Your task to perform on an android device: Open notification settings Image 0: 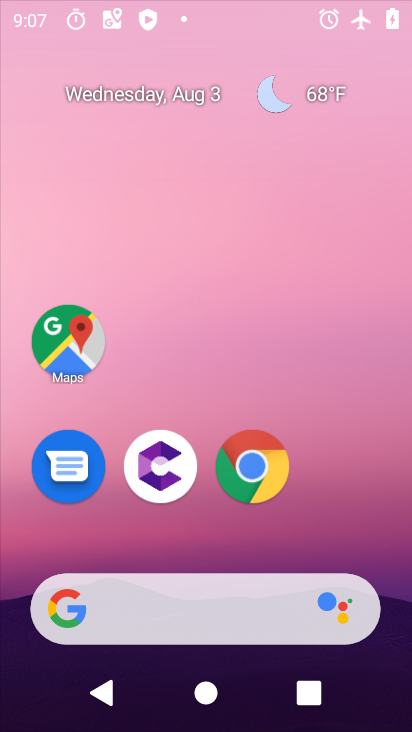
Step 0: drag from (348, 547) to (263, 71)
Your task to perform on an android device: Open notification settings Image 1: 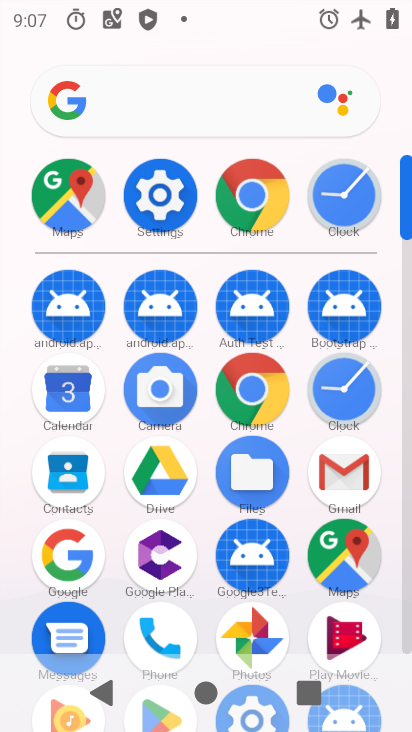
Step 1: click (162, 195)
Your task to perform on an android device: Open notification settings Image 2: 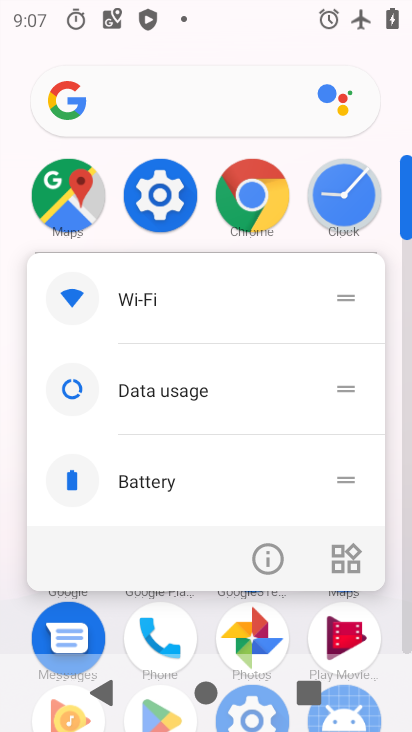
Step 2: click (386, 591)
Your task to perform on an android device: Open notification settings Image 3: 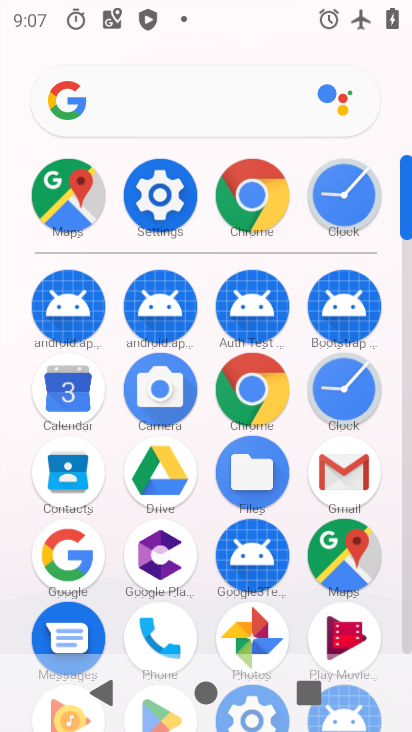
Step 3: drag from (289, 590) to (292, 177)
Your task to perform on an android device: Open notification settings Image 4: 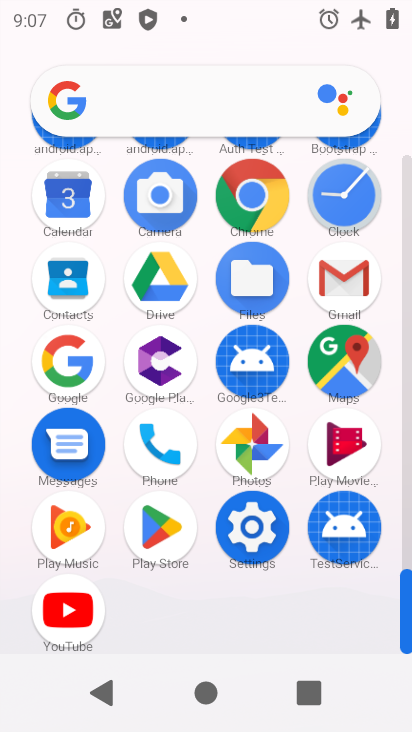
Step 4: click (262, 531)
Your task to perform on an android device: Open notification settings Image 5: 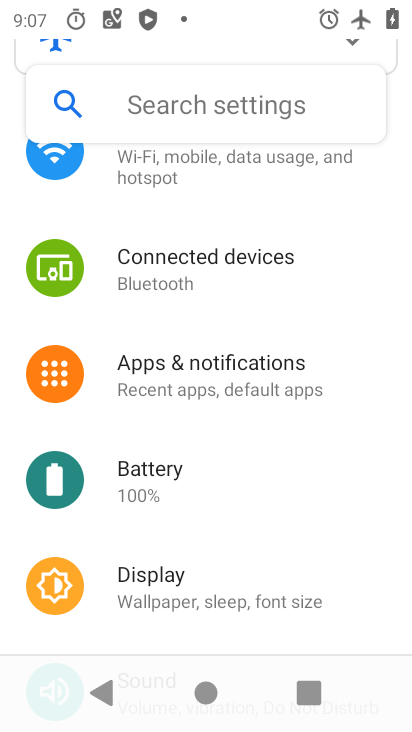
Step 5: click (234, 363)
Your task to perform on an android device: Open notification settings Image 6: 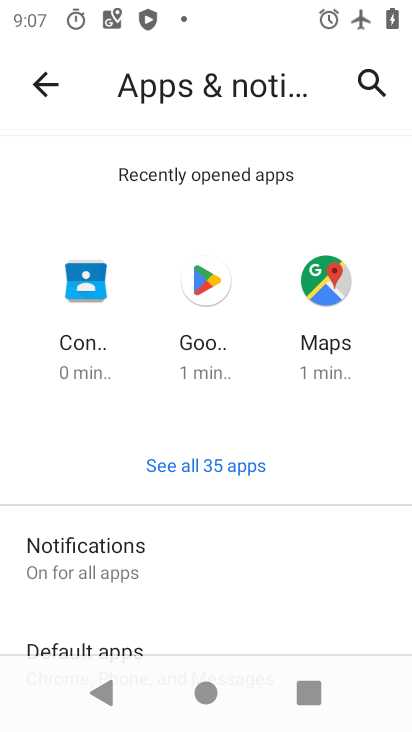
Step 6: click (133, 567)
Your task to perform on an android device: Open notification settings Image 7: 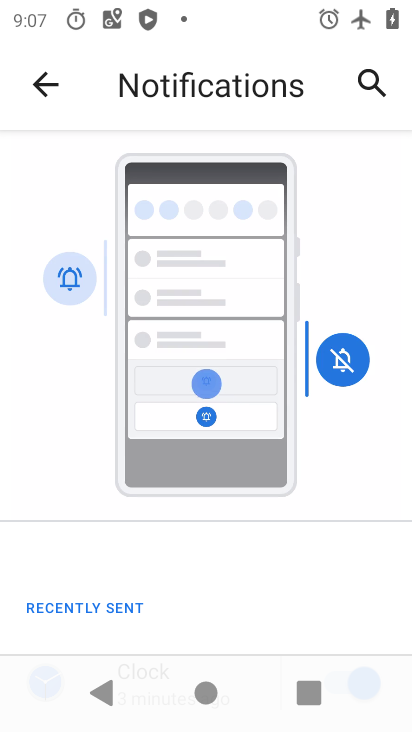
Step 7: task complete